Your task to perform on an android device: Check the weather Image 0: 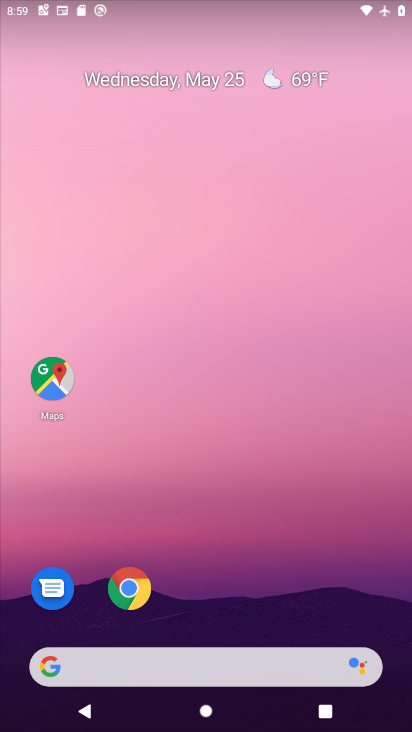
Step 0: click (233, 664)
Your task to perform on an android device: Check the weather Image 1: 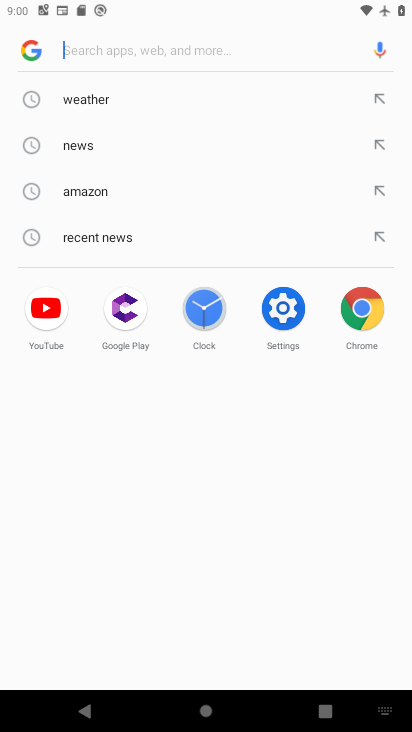
Step 1: click (103, 103)
Your task to perform on an android device: Check the weather Image 2: 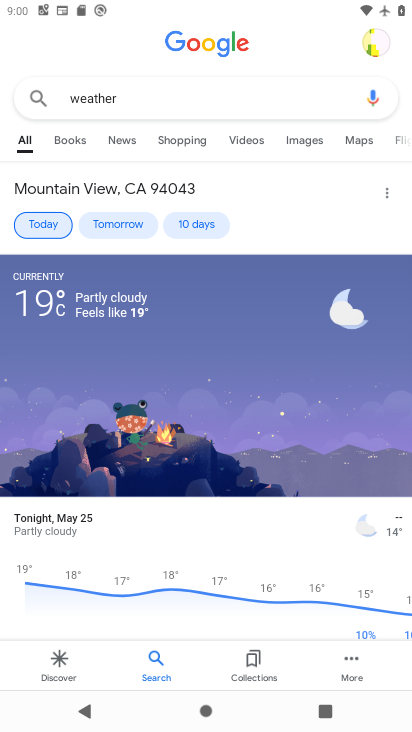
Step 2: task complete